Your task to perform on an android device: Go to wifi settings Image 0: 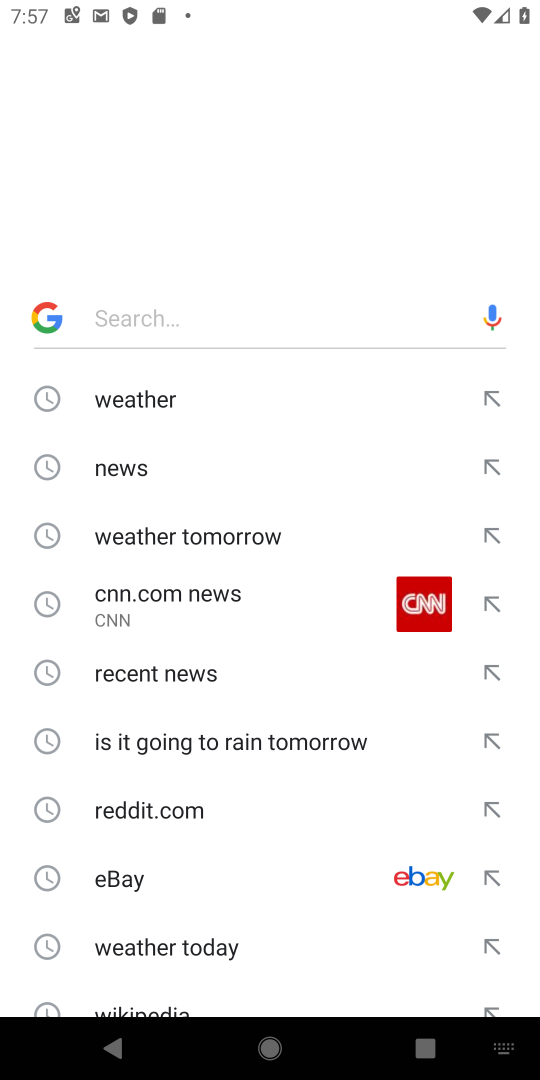
Step 0: press home button
Your task to perform on an android device: Go to wifi settings Image 1: 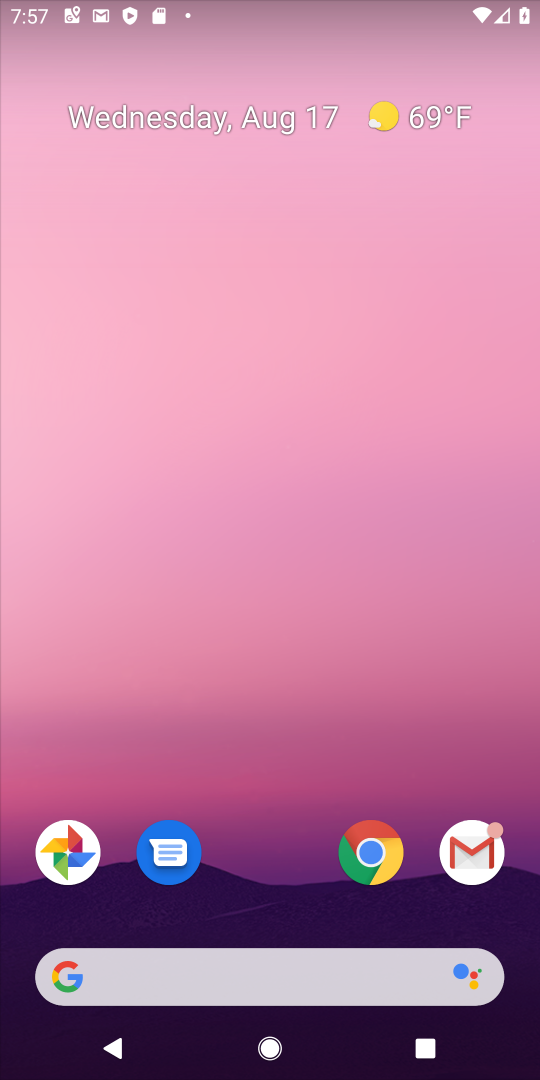
Step 1: drag from (256, 884) to (246, 461)
Your task to perform on an android device: Go to wifi settings Image 2: 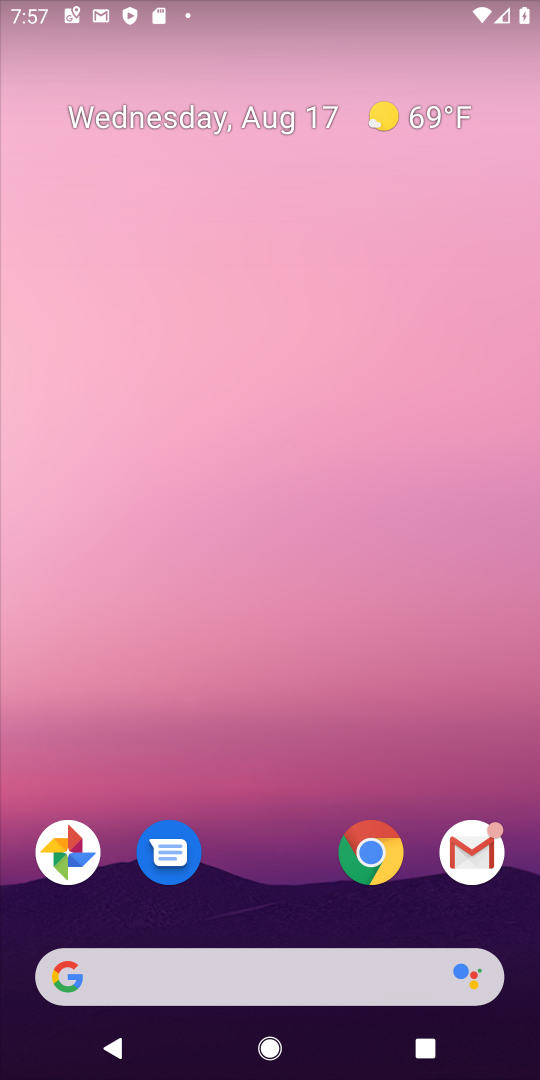
Step 2: drag from (275, 907) to (239, 374)
Your task to perform on an android device: Go to wifi settings Image 3: 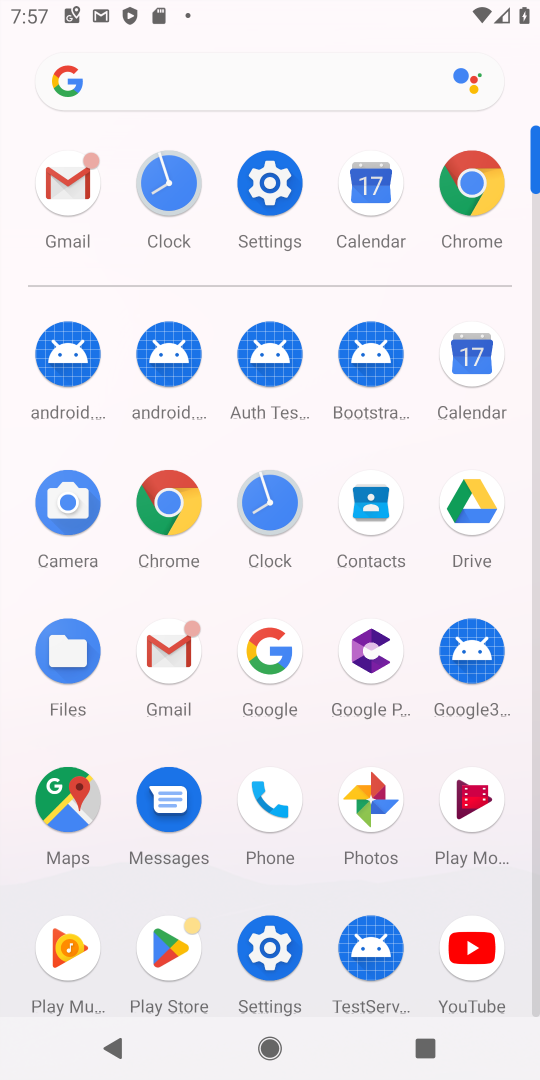
Step 3: click (272, 192)
Your task to perform on an android device: Go to wifi settings Image 4: 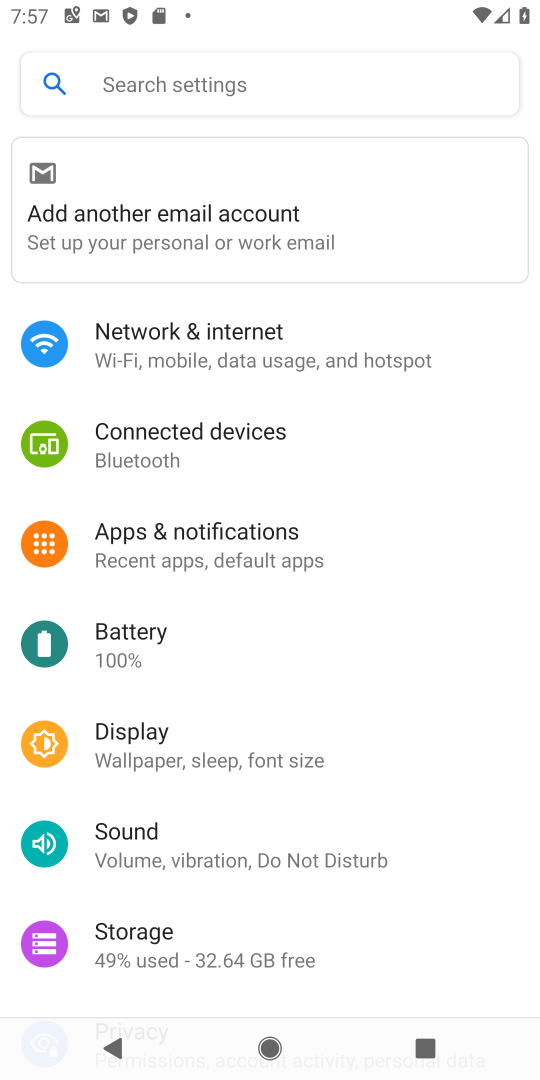
Step 4: click (191, 334)
Your task to perform on an android device: Go to wifi settings Image 5: 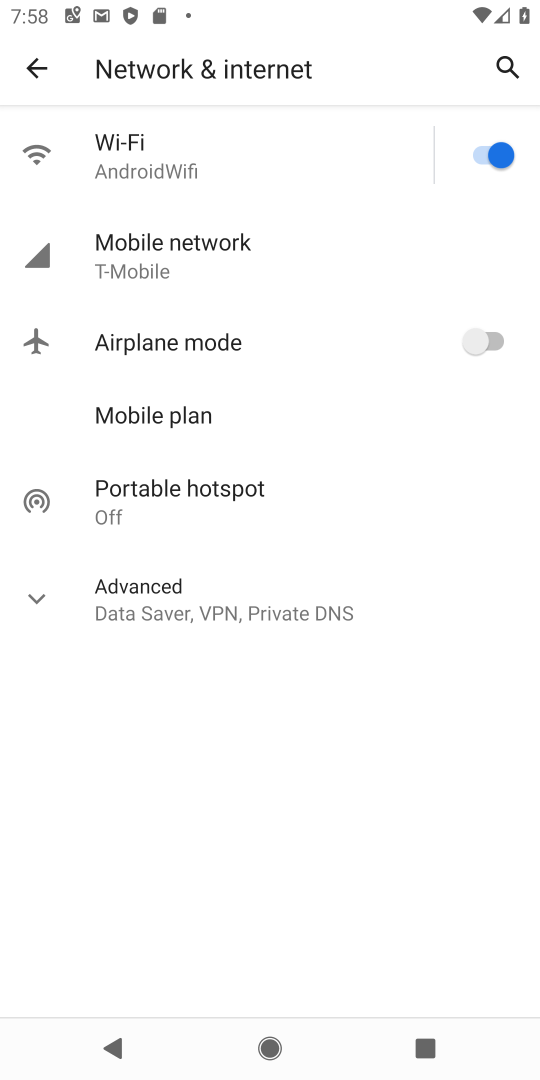
Step 5: click (129, 143)
Your task to perform on an android device: Go to wifi settings Image 6: 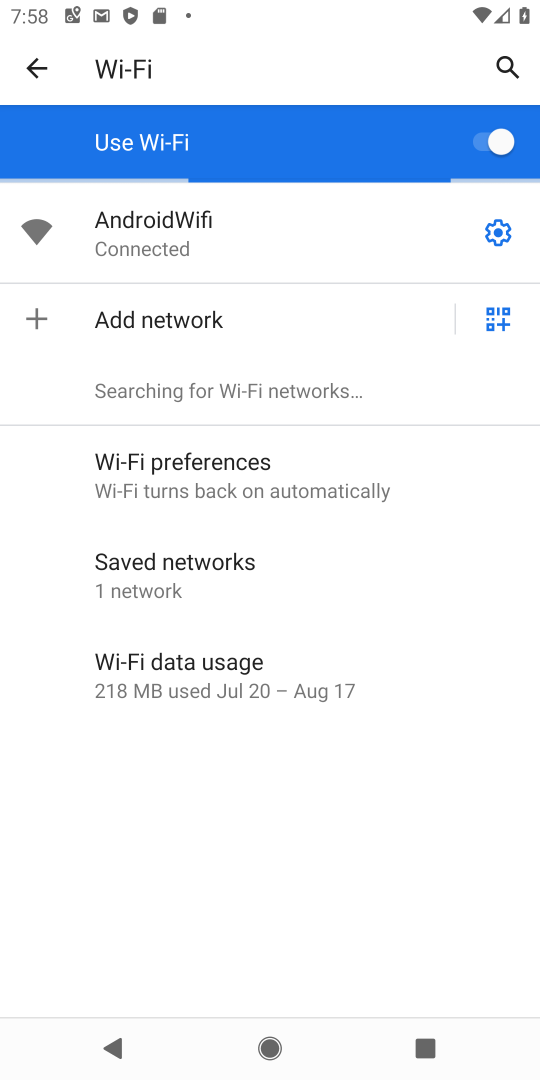
Step 6: task complete